Your task to perform on an android device: move a message to another label in the gmail app Image 0: 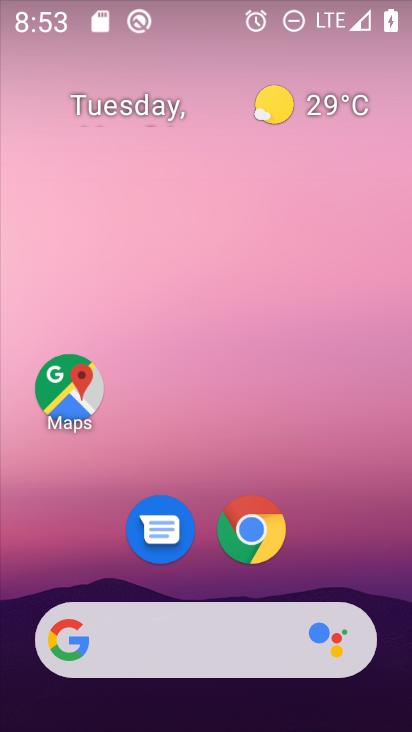
Step 0: drag from (387, 648) to (44, 9)
Your task to perform on an android device: move a message to another label in the gmail app Image 1: 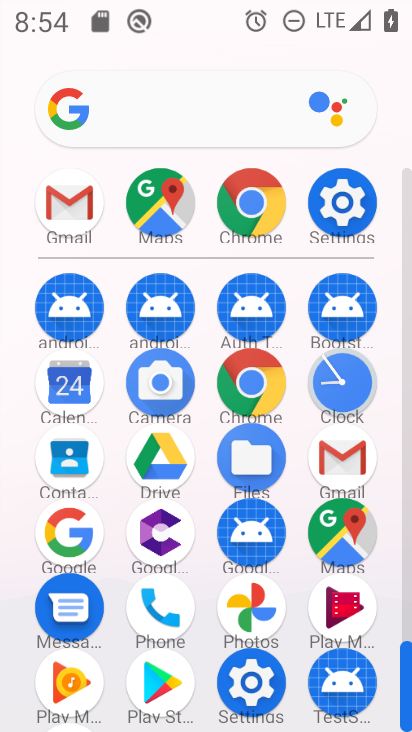
Step 1: click (337, 472)
Your task to perform on an android device: move a message to another label in the gmail app Image 2: 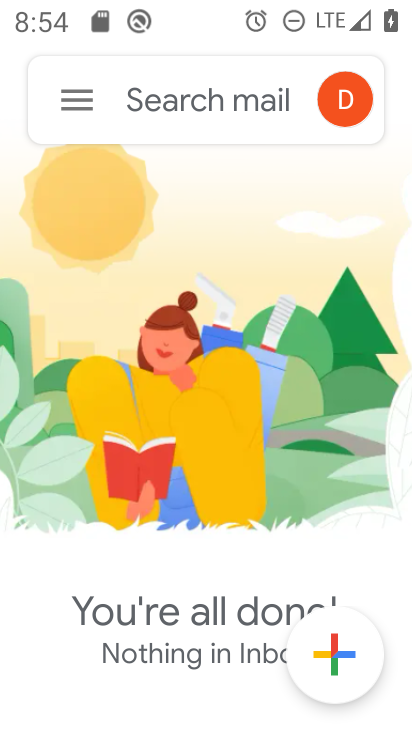
Step 2: task complete